Your task to perform on an android device: turn on notifications settings in the gmail app Image 0: 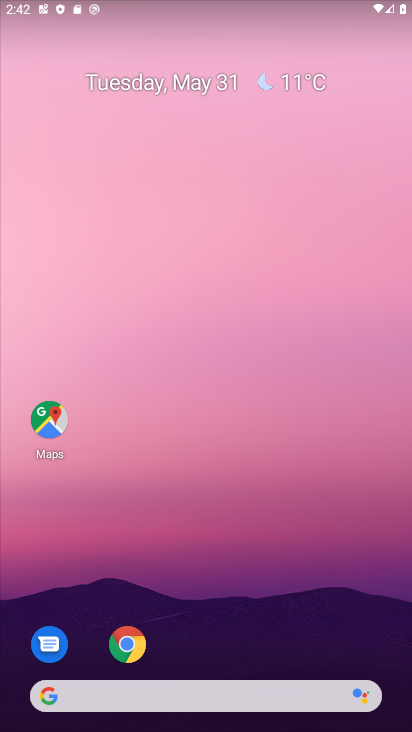
Step 0: click (220, 40)
Your task to perform on an android device: turn on notifications settings in the gmail app Image 1: 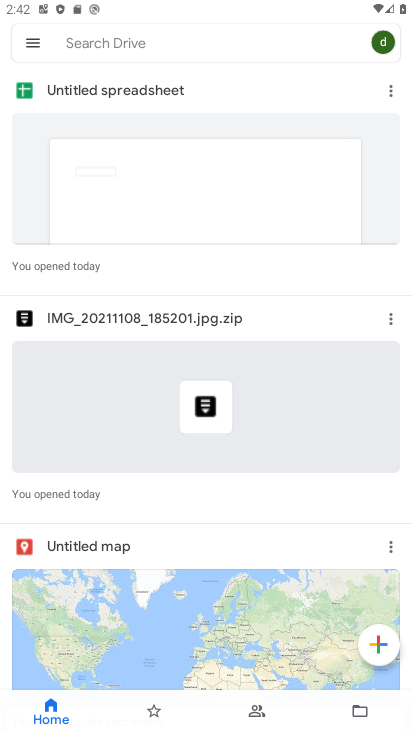
Step 1: press home button
Your task to perform on an android device: turn on notifications settings in the gmail app Image 2: 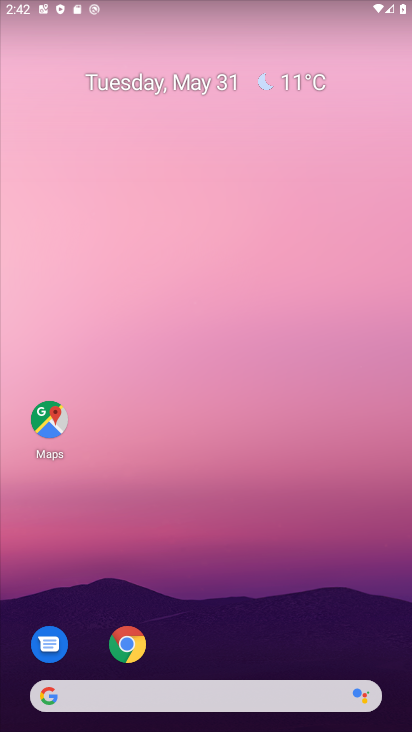
Step 2: drag from (140, 607) to (256, 54)
Your task to perform on an android device: turn on notifications settings in the gmail app Image 3: 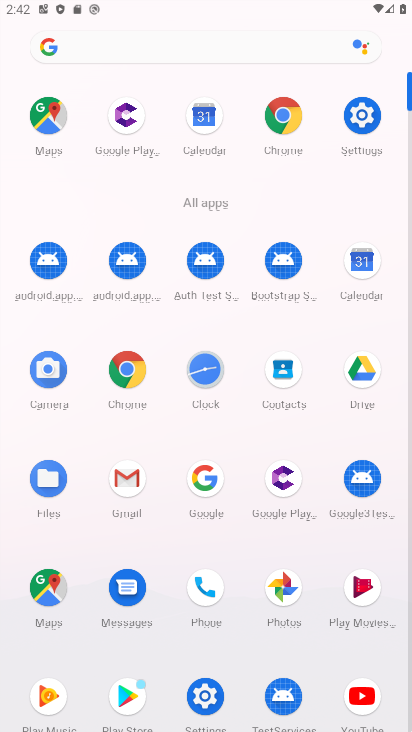
Step 3: click (121, 464)
Your task to perform on an android device: turn on notifications settings in the gmail app Image 4: 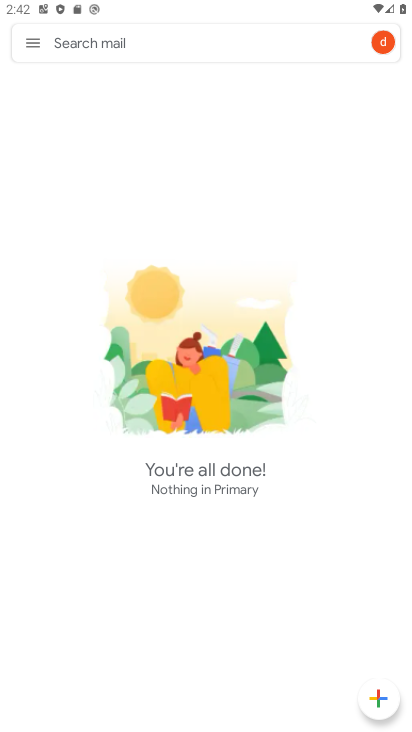
Step 4: click (32, 43)
Your task to perform on an android device: turn on notifications settings in the gmail app Image 5: 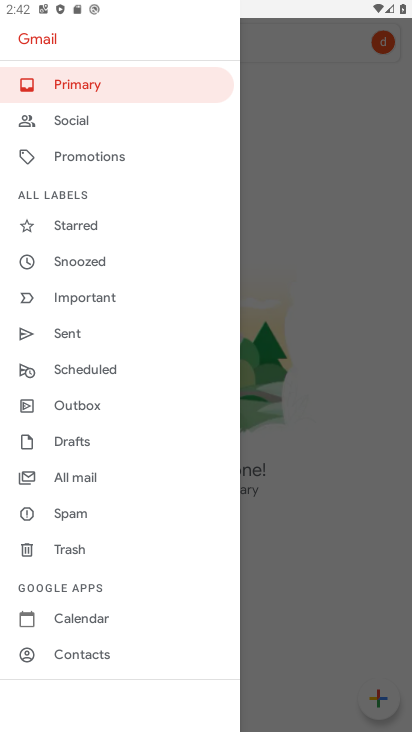
Step 5: drag from (119, 626) to (126, 192)
Your task to perform on an android device: turn on notifications settings in the gmail app Image 6: 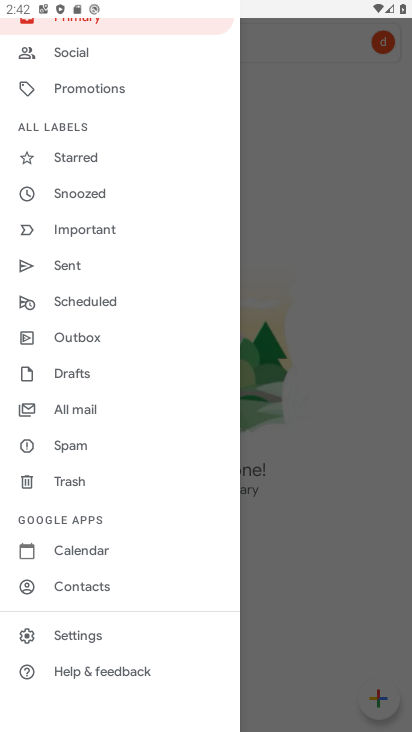
Step 6: click (131, 627)
Your task to perform on an android device: turn on notifications settings in the gmail app Image 7: 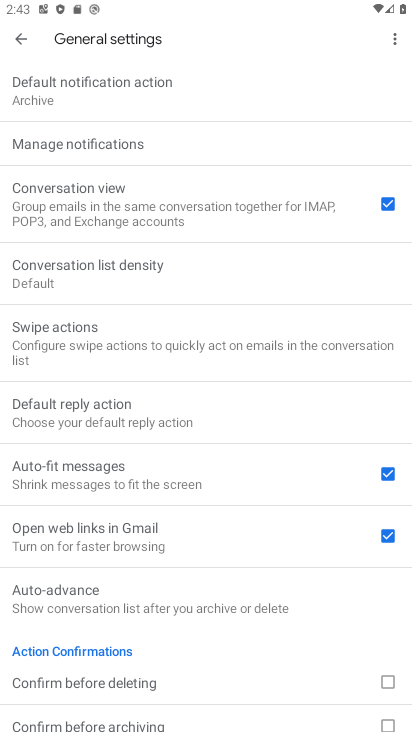
Step 7: click (172, 140)
Your task to perform on an android device: turn on notifications settings in the gmail app Image 8: 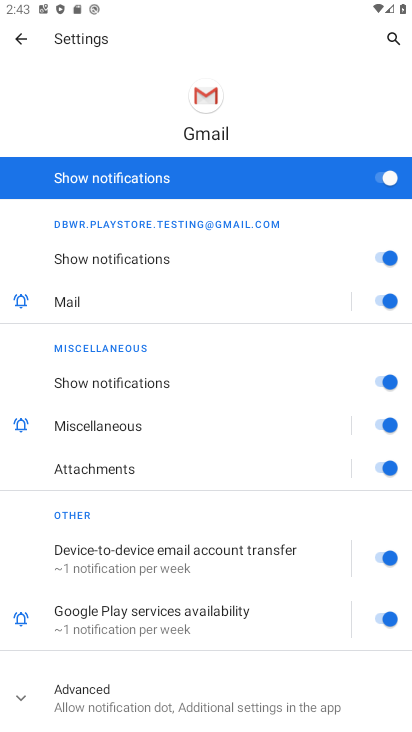
Step 8: task complete